Your task to perform on an android device: Go to location settings Image 0: 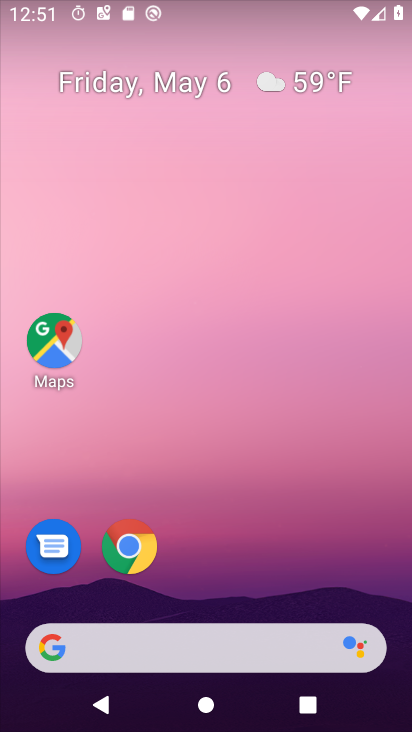
Step 0: drag from (248, 593) to (248, 63)
Your task to perform on an android device: Go to location settings Image 1: 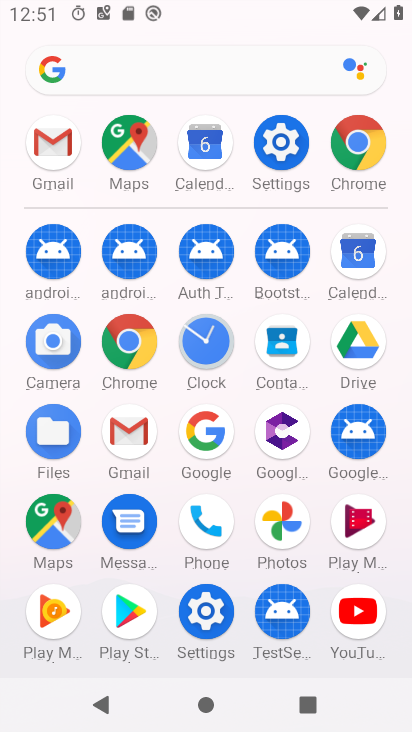
Step 1: click (279, 140)
Your task to perform on an android device: Go to location settings Image 2: 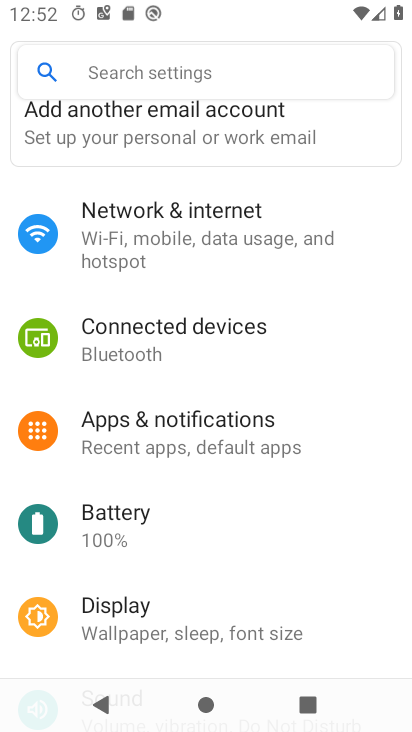
Step 2: drag from (234, 598) to (207, 332)
Your task to perform on an android device: Go to location settings Image 3: 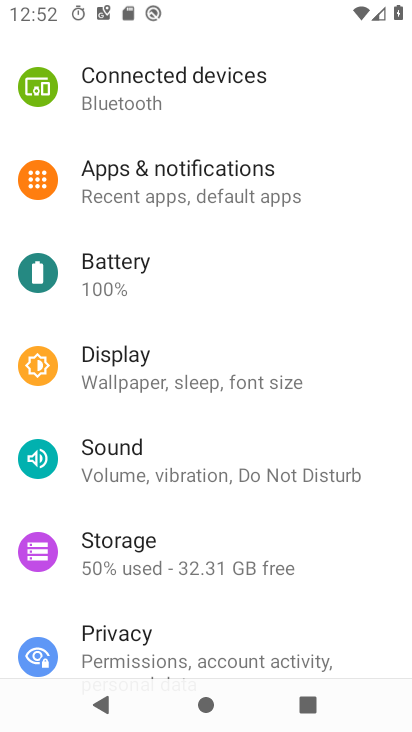
Step 3: drag from (243, 609) to (237, 353)
Your task to perform on an android device: Go to location settings Image 4: 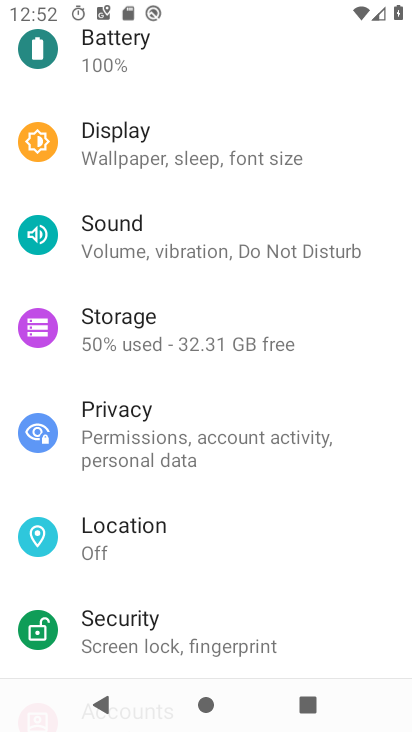
Step 4: click (113, 545)
Your task to perform on an android device: Go to location settings Image 5: 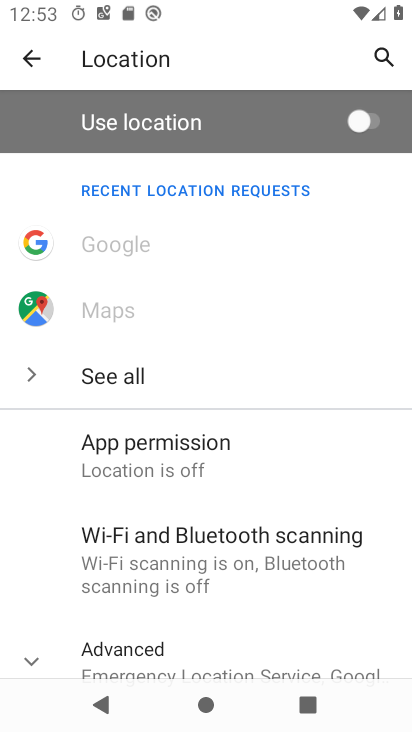
Step 5: task complete